Your task to perform on an android device: turn off improve location accuracy Image 0: 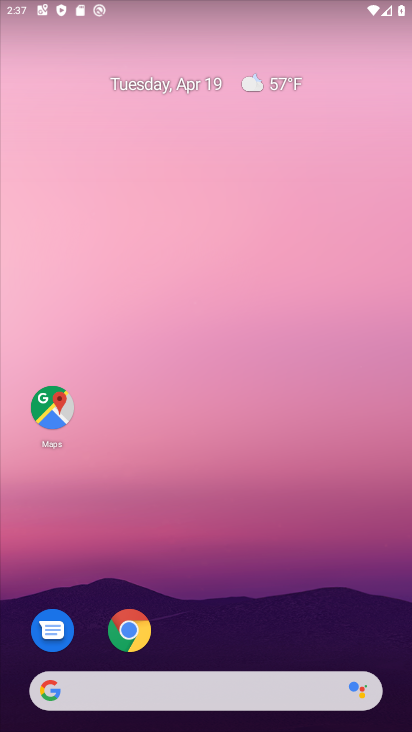
Step 0: drag from (234, 554) to (236, 241)
Your task to perform on an android device: turn off improve location accuracy Image 1: 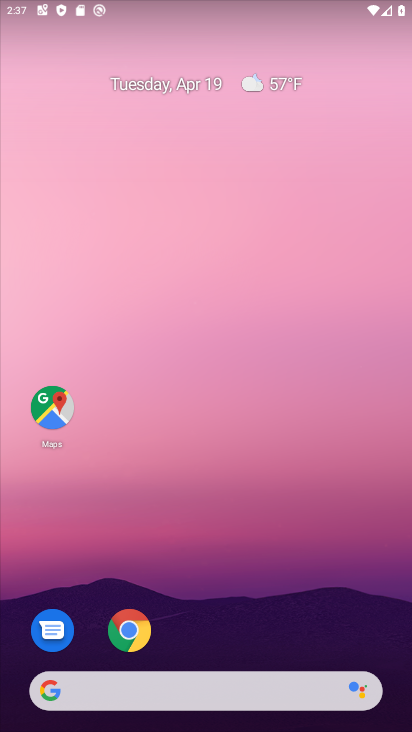
Step 1: drag from (241, 606) to (241, 161)
Your task to perform on an android device: turn off improve location accuracy Image 2: 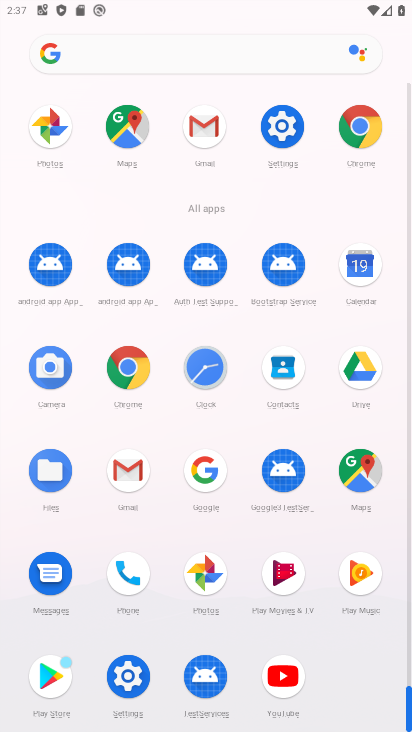
Step 2: click (264, 129)
Your task to perform on an android device: turn off improve location accuracy Image 3: 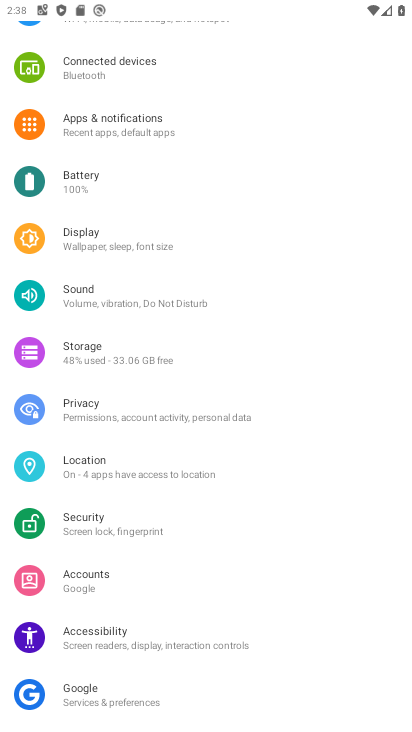
Step 3: click (103, 474)
Your task to perform on an android device: turn off improve location accuracy Image 4: 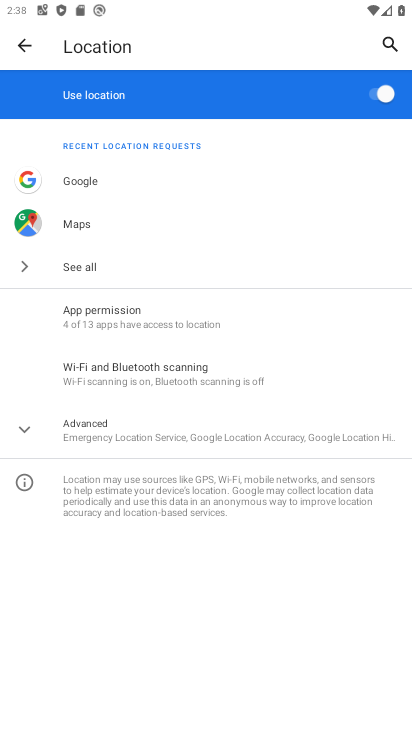
Step 4: click (143, 431)
Your task to perform on an android device: turn off improve location accuracy Image 5: 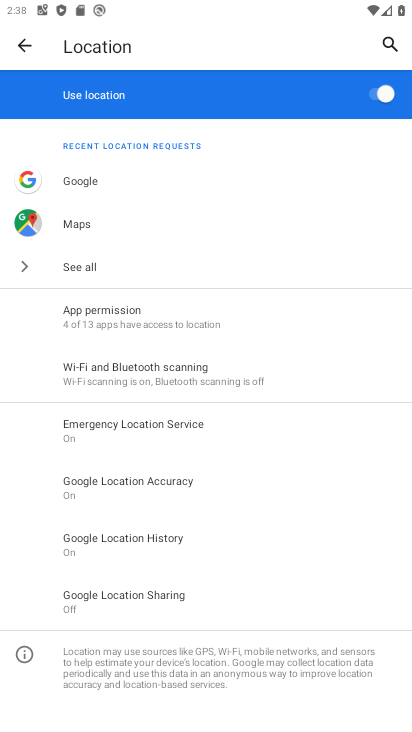
Step 5: click (181, 486)
Your task to perform on an android device: turn off improve location accuracy Image 6: 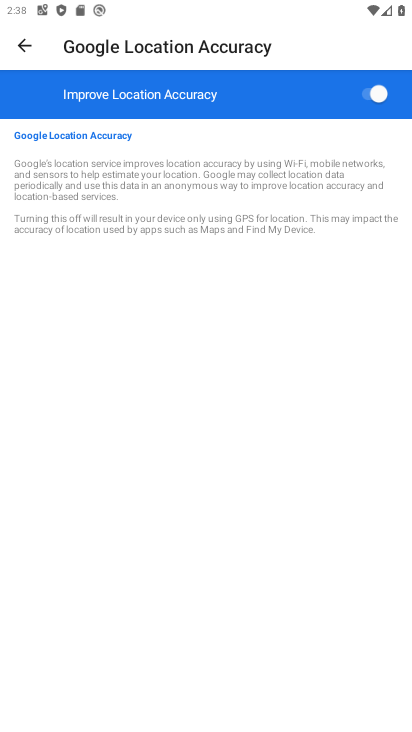
Step 6: click (364, 95)
Your task to perform on an android device: turn off improve location accuracy Image 7: 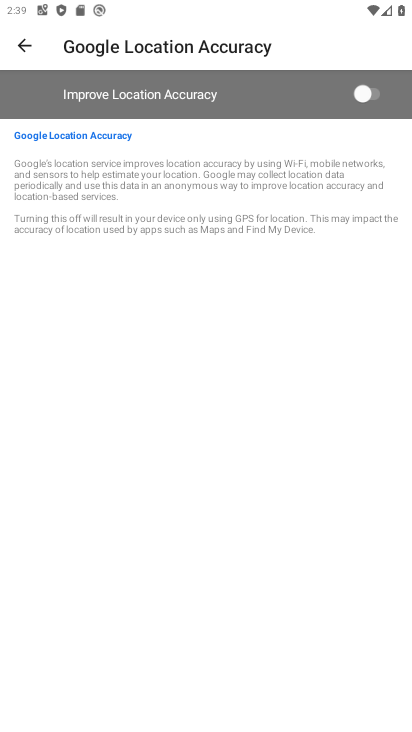
Step 7: task complete